Your task to perform on an android device: Open privacy settings Image 0: 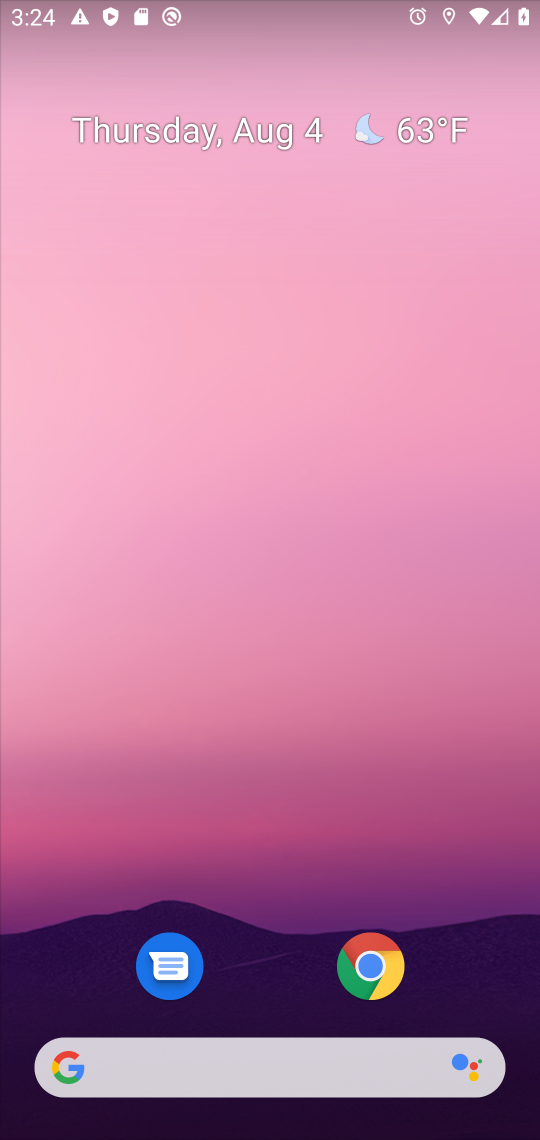
Step 0: drag from (289, 934) to (298, 211)
Your task to perform on an android device: Open privacy settings Image 1: 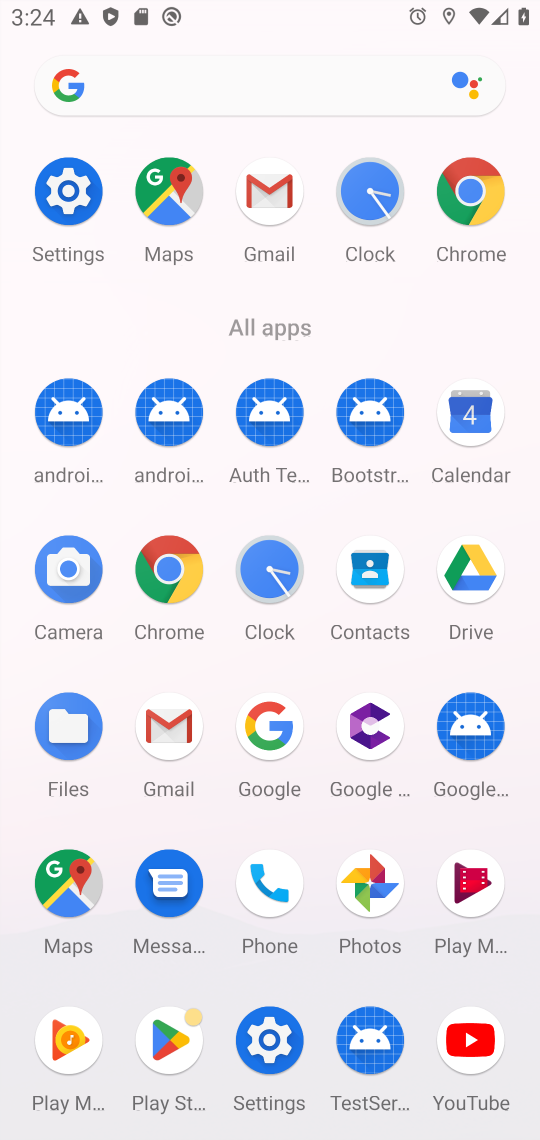
Step 1: click (104, 208)
Your task to perform on an android device: Open privacy settings Image 2: 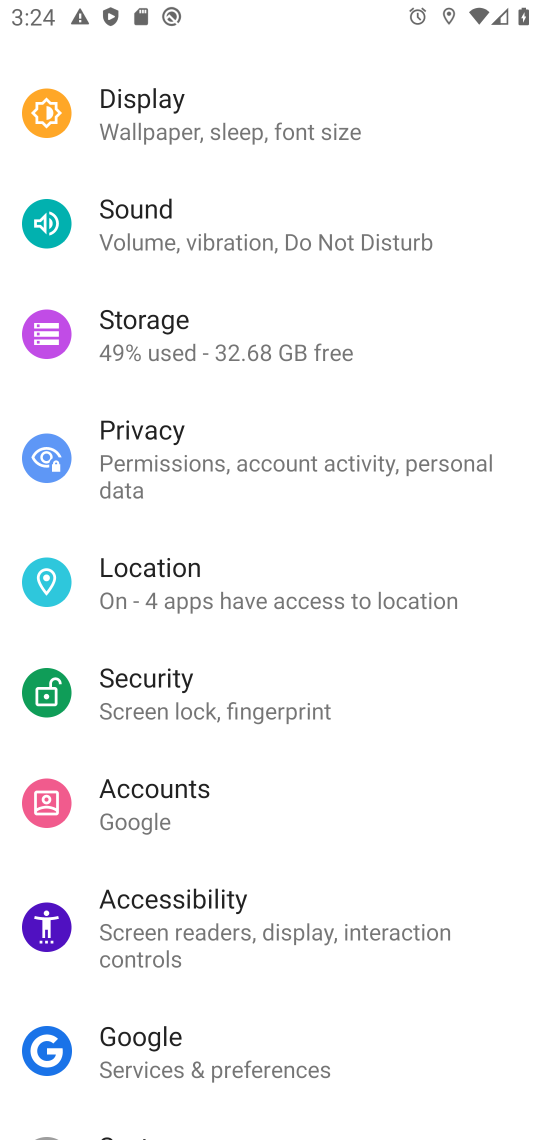
Step 2: click (146, 424)
Your task to perform on an android device: Open privacy settings Image 3: 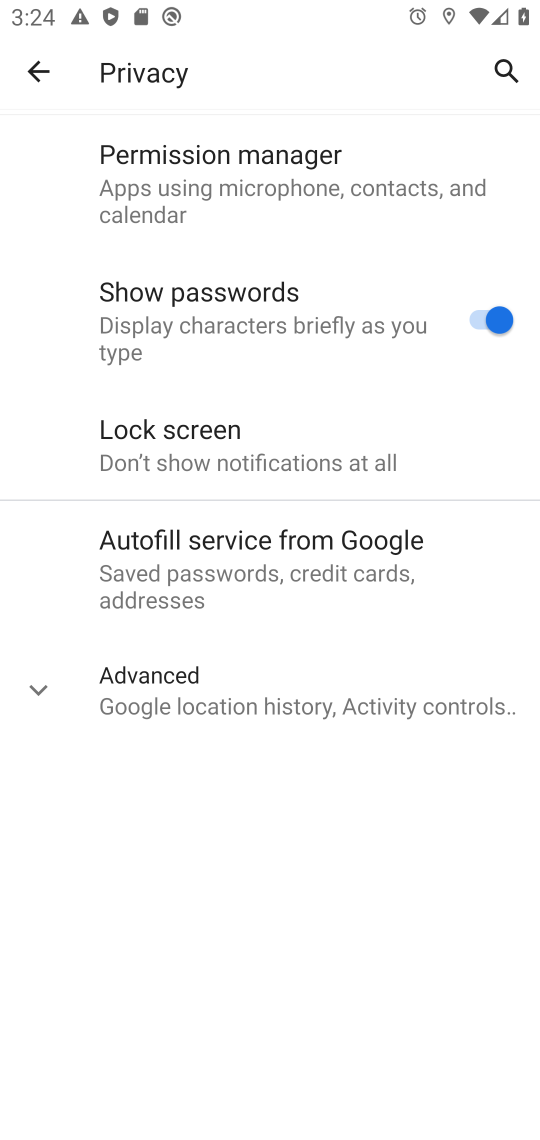
Step 3: task complete